Your task to perform on an android device: check storage Image 0: 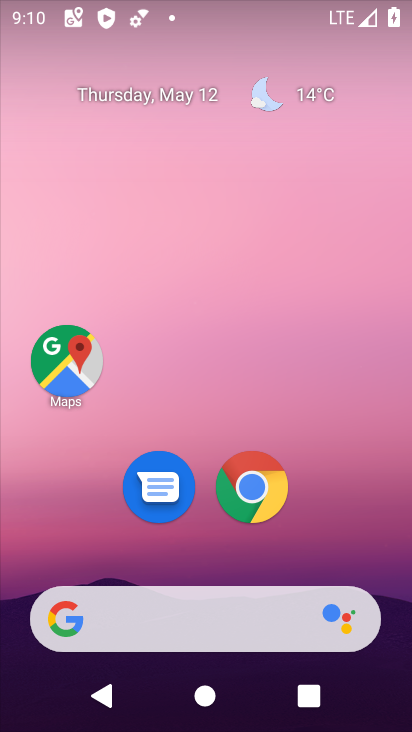
Step 0: drag from (101, 530) to (309, 88)
Your task to perform on an android device: check storage Image 1: 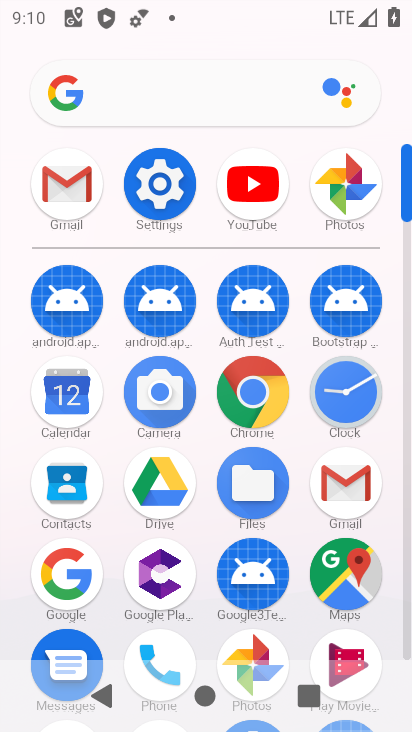
Step 1: click (172, 194)
Your task to perform on an android device: check storage Image 2: 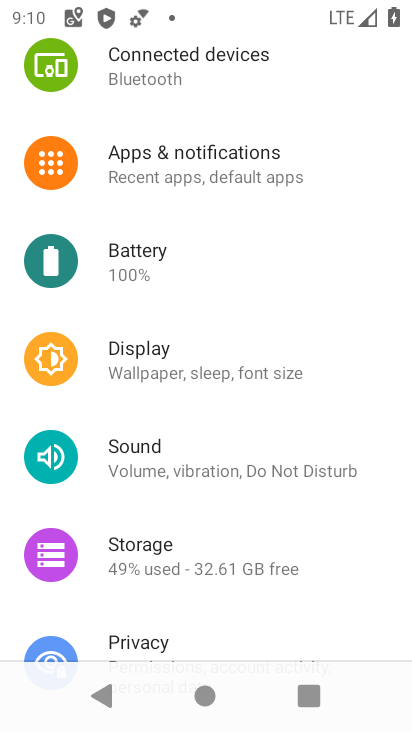
Step 2: click (198, 553)
Your task to perform on an android device: check storage Image 3: 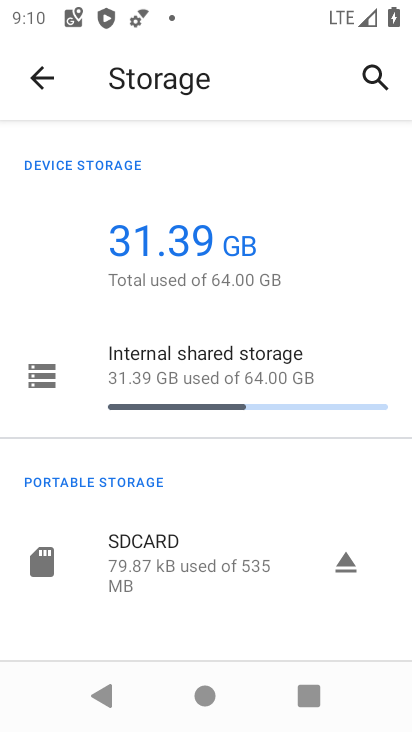
Step 3: task complete